Your task to perform on an android device: Go to wifi settings Image 0: 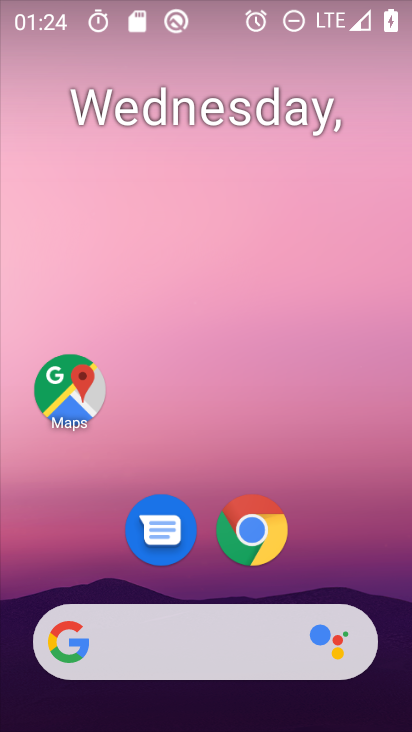
Step 0: drag from (269, 632) to (282, 3)
Your task to perform on an android device: Go to wifi settings Image 1: 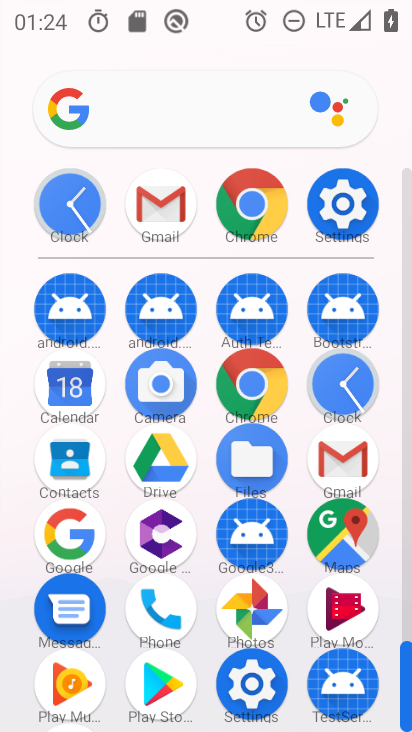
Step 1: click (372, 211)
Your task to perform on an android device: Go to wifi settings Image 2: 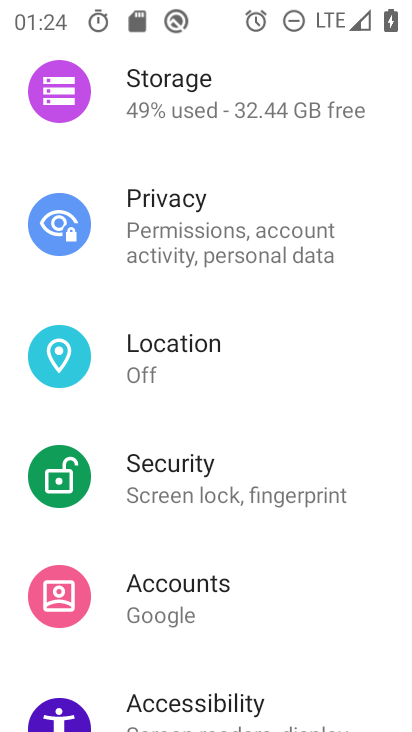
Step 2: drag from (372, 211) to (375, 716)
Your task to perform on an android device: Go to wifi settings Image 3: 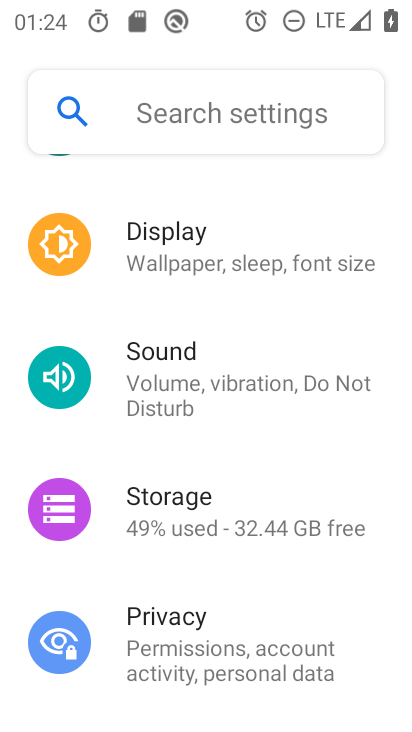
Step 3: drag from (309, 298) to (330, 614)
Your task to perform on an android device: Go to wifi settings Image 4: 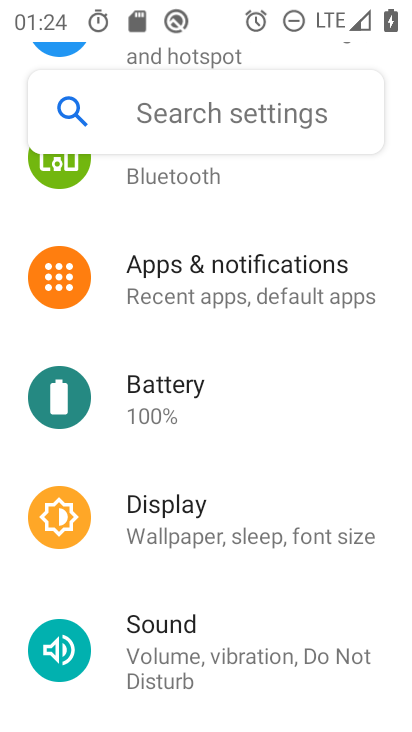
Step 4: drag from (232, 367) to (272, 711)
Your task to perform on an android device: Go to wifi settings Image 5: 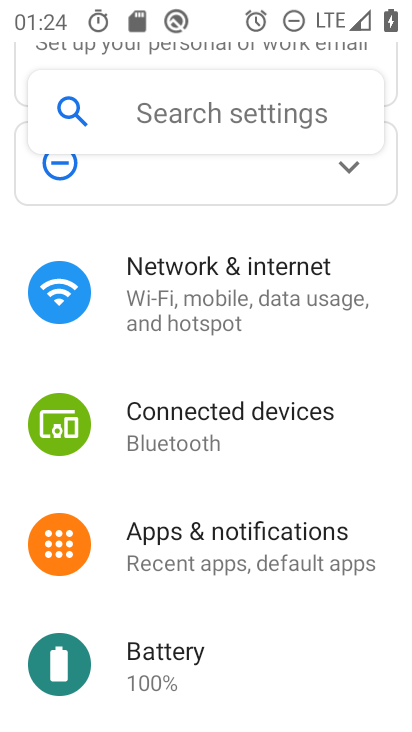
Step 5: click (253, 304)
Your task to perform on an android device: Go to wifi settings Image 6: 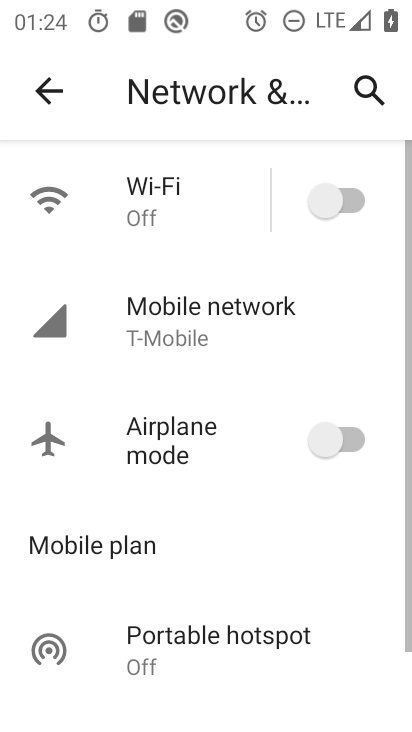
Step 6: click (160, 189)
Your task to perform on an android device: Go to wifi settings Image 7: 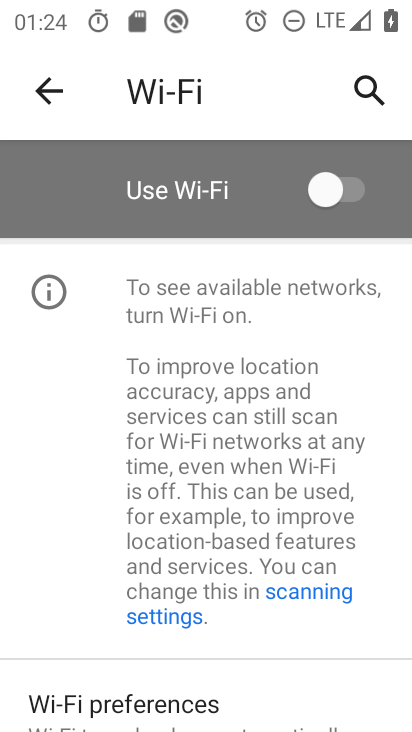
Step 7: task complete